Your task to perform on an android device: turn off wifi Image 0: 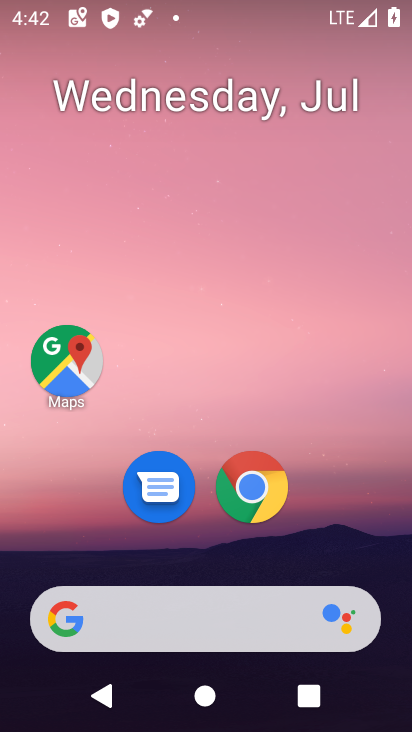
Step 0: drag from (102, 46) to (146, 660)
Your task to perform on an android device: turn off wifi Image 1: 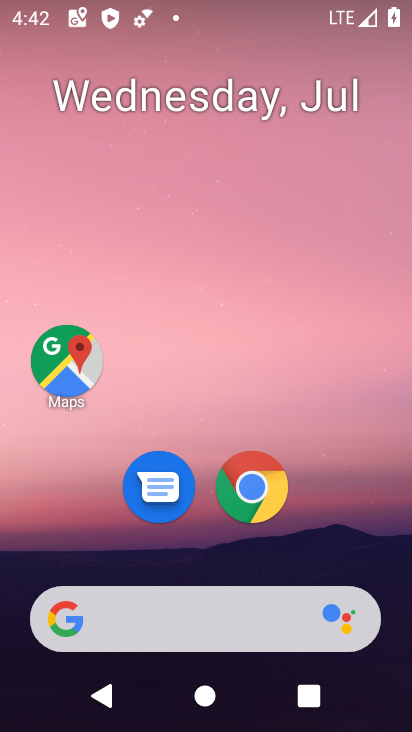
Step 1: task complete